Your task to perform on an android device: find photos in the google photos app Image 0: 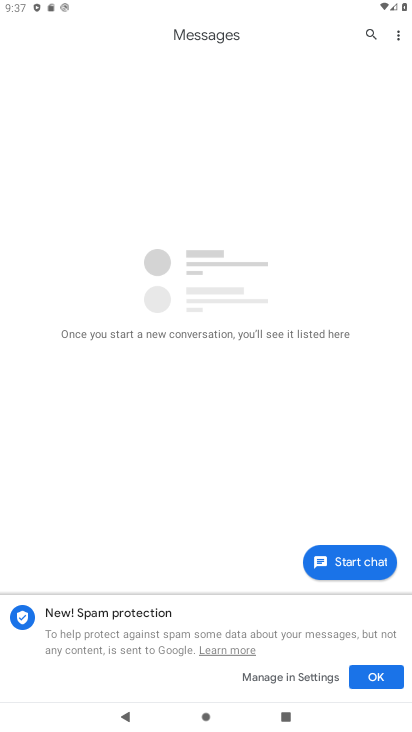
Step 0: press home button
Your task to perform on an android device: find photos in the google photos app Image 1: 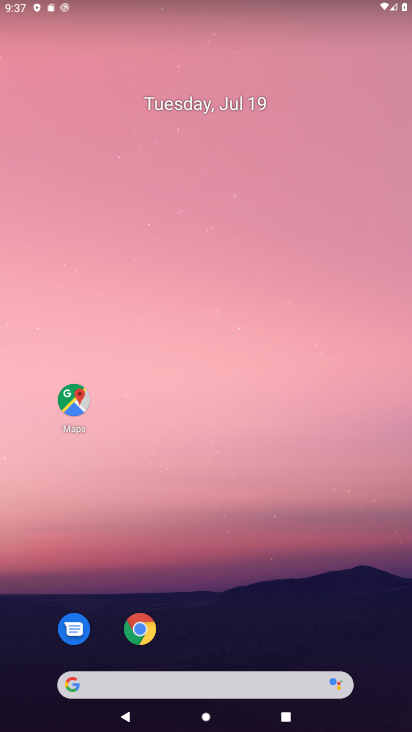
Step 1: drag from (204, 580) to (265, 31)
Your task to perform on an android device: find photos in the google photos app Image 2: 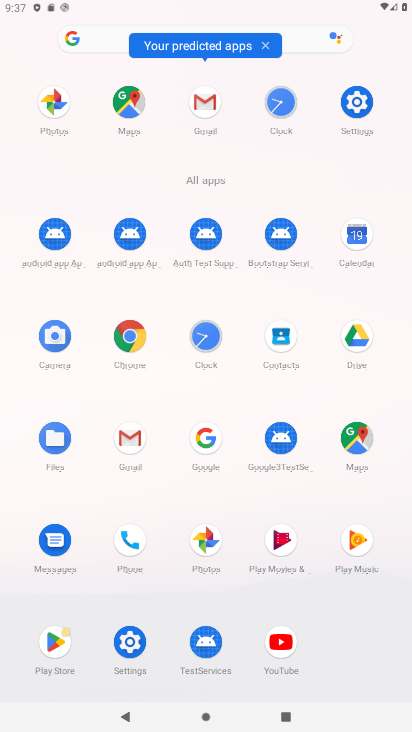
Step 2: click (210, 556)
Your task to perform on an android device: find photos in the google photos app Image 3: 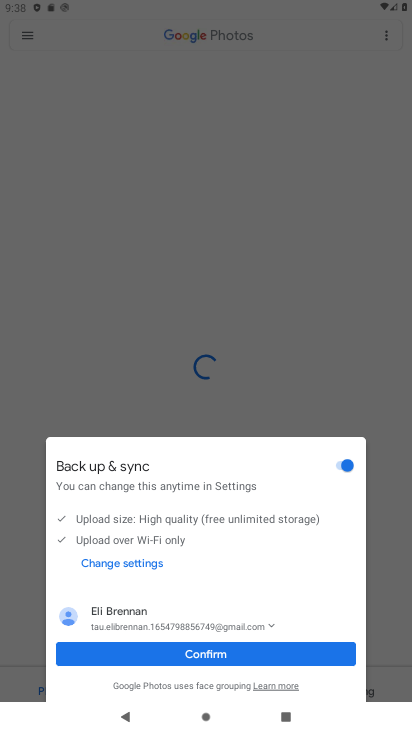
Step 3: click (228, 653)
Your task to perform on an android device: find photos in the google photos app Image 4: 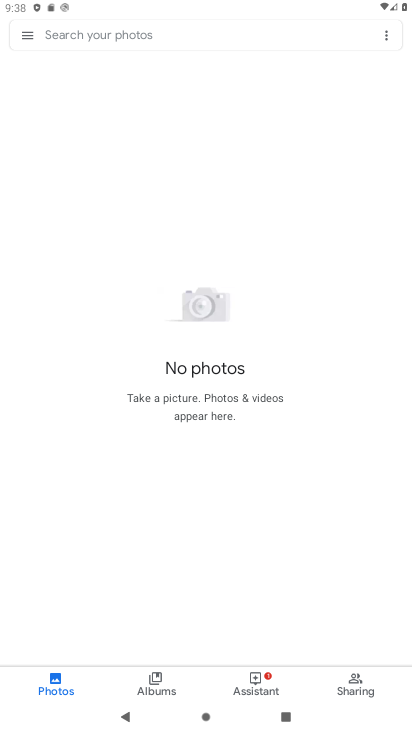
Step 4: task complete